Your task to perform on an android device: Go to Amazon Image 0: 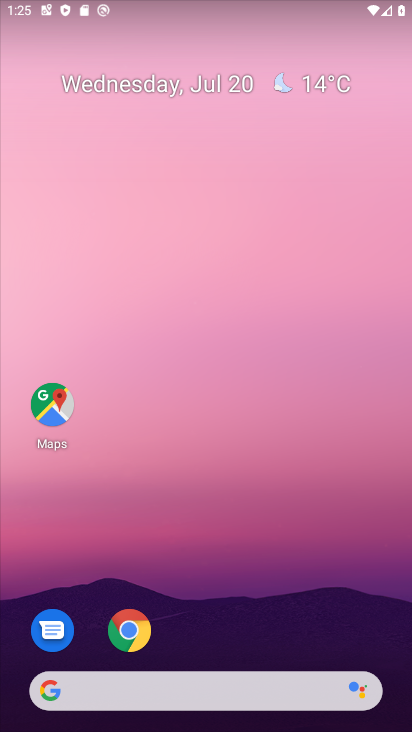
Step 0: click (138, 640)
Your task to perform on an android device: Go to Amazon Image 1: 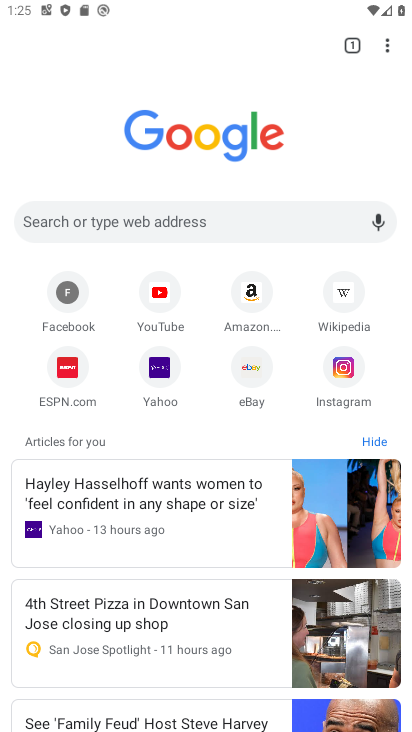
Step 1: click (246, 285)
Your task to perform on an android device: Go to Amazon Image 2: 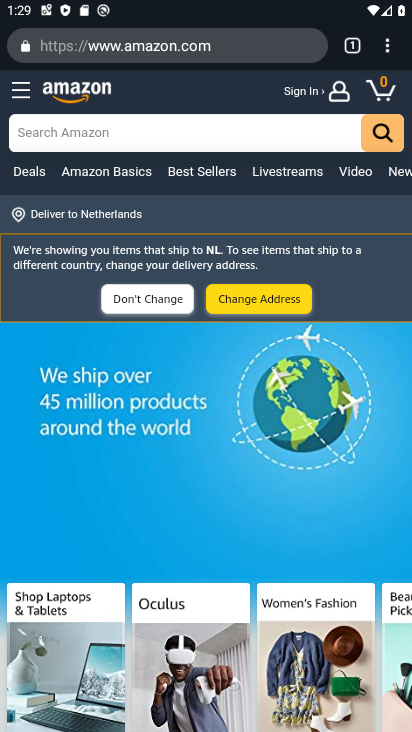
Step 2: task complete